Your task to perform on an android device: Open Reddit.com Image 0: 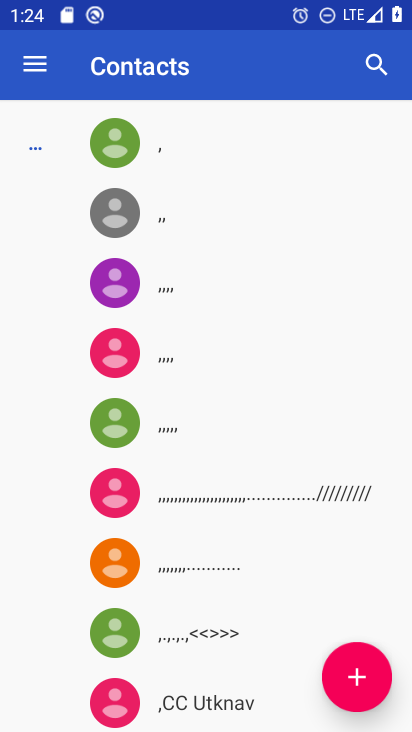
Step 0: press home button
Your task to perform on an android device: Open Reddit.com Image 1: 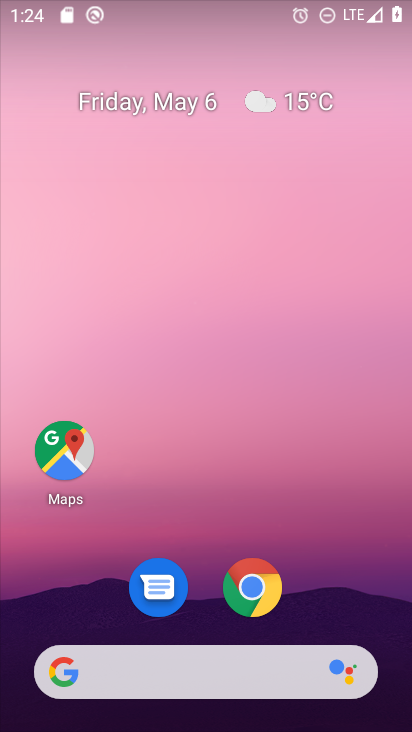
Step 1: click (253, 592)
Your task to perform on an android device: Open Reddit.com Image 2: 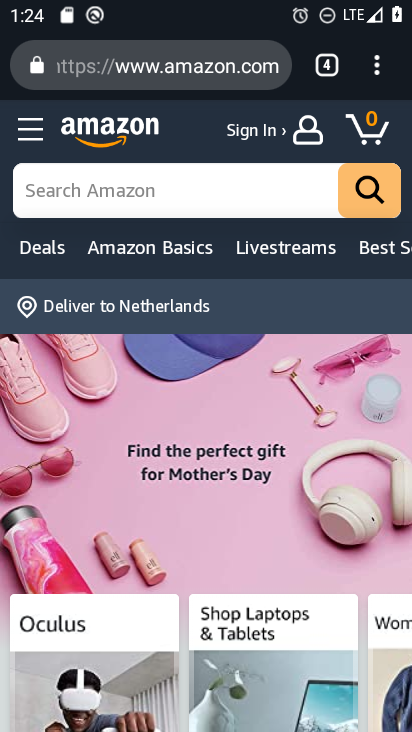
Step 2: click (171, 80)
Your task to perform on an android device: Open Reddit.com Image 3: 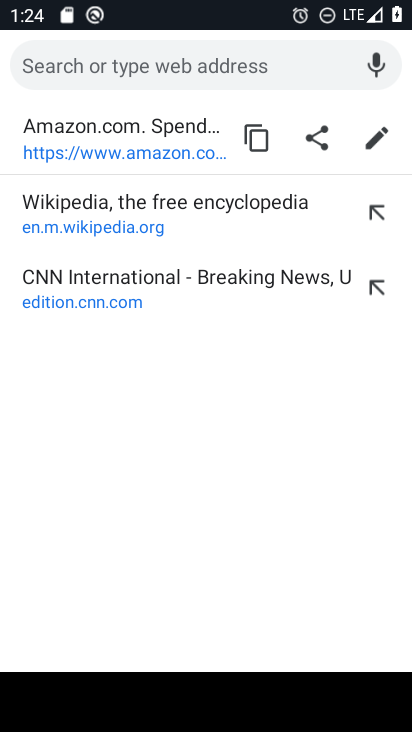
Step 3: type "Reddit.com"
Your task to perform on an android device: Open Reddit.com Image 4: 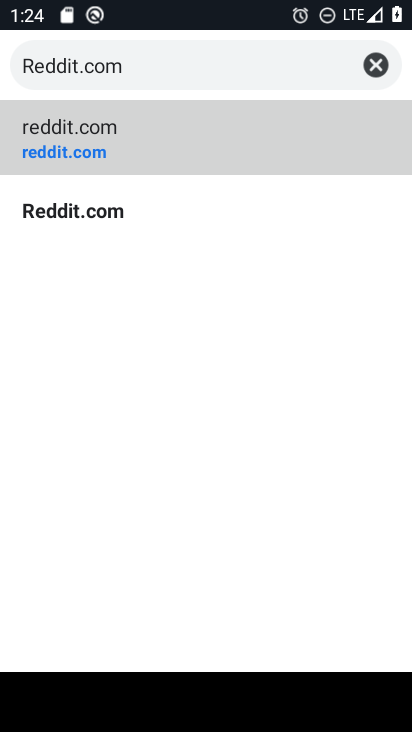
Step 4: click (128, 149)
Your task to perform on an android device: Open Reddit.com Image 5: 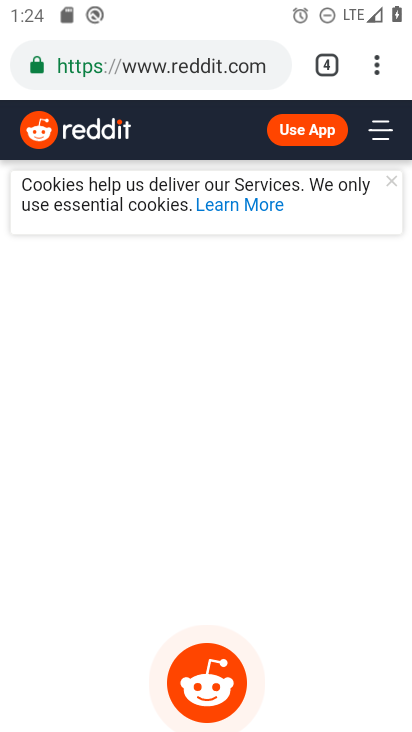
Step 5: task complete